Your task to perform on an android device: turn on notifications settings in the gmail app Image 0: 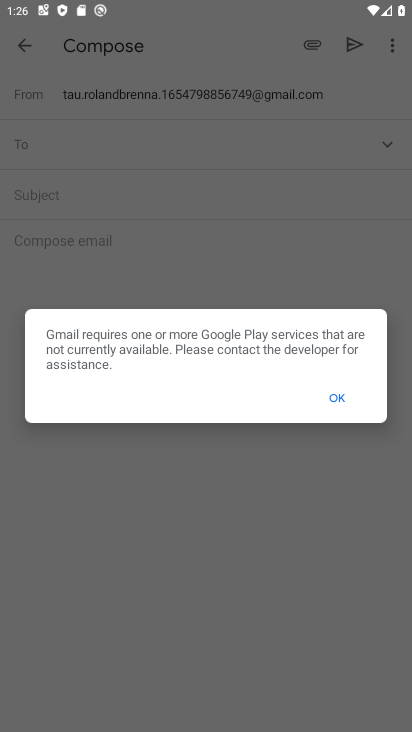
Step 0: click (340, 389)
Your task to perform on an android device: turn on notifications settings in the gmail app Image 1: 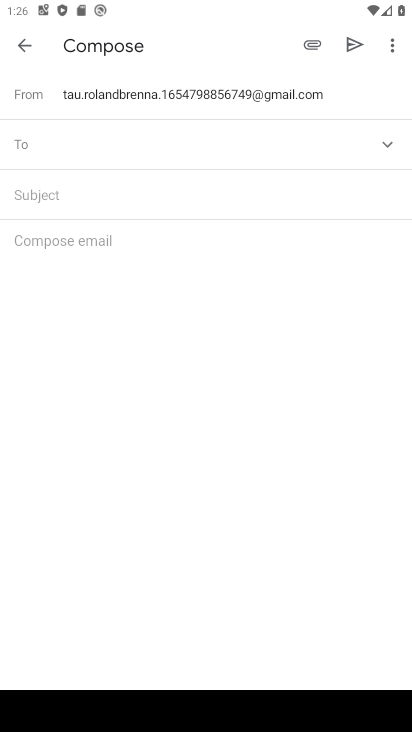
Step 1: press home button
Your task to perform on an android device: turn on notifications settings in the gmail app Image 2: 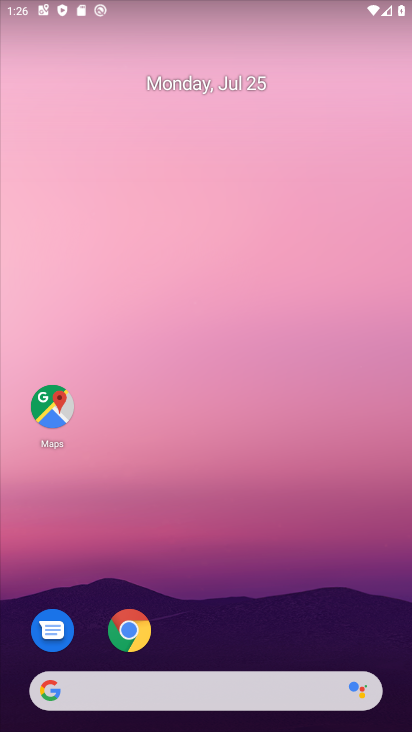
Step 2: drag from (249, 638) to (167, 19)
Your task to perform on an android device: turn on notifications settings in the gmail app Image 3: 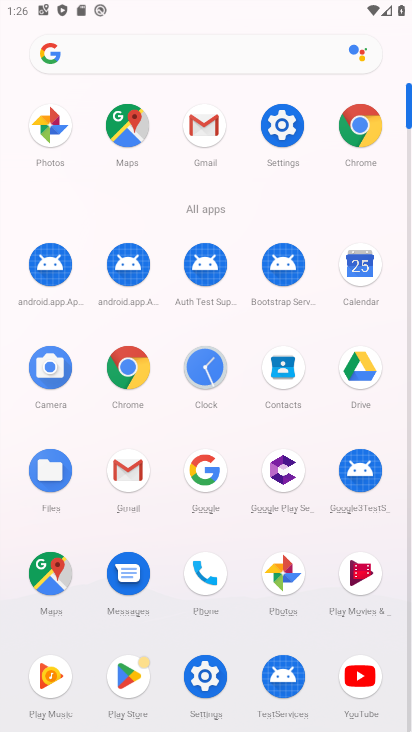
Step 3: click (207, 132)
Your task to perform on an android device: turn on notifications settings in the gmail app Image 4: 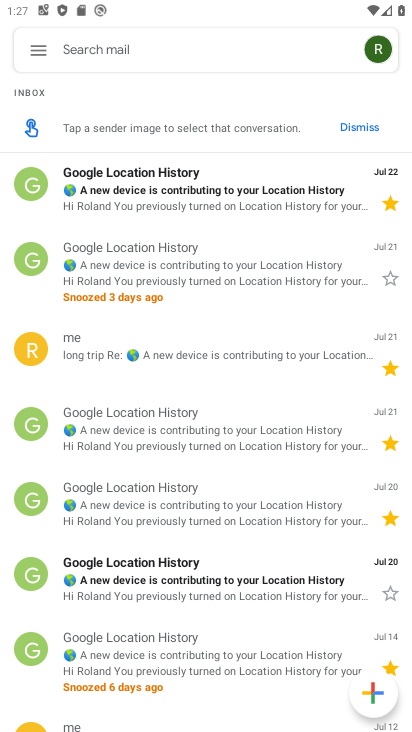
Step 4: click (44, 57)
Your task to perform on an android device: turn on notifications settings in the gmail app Image 5: 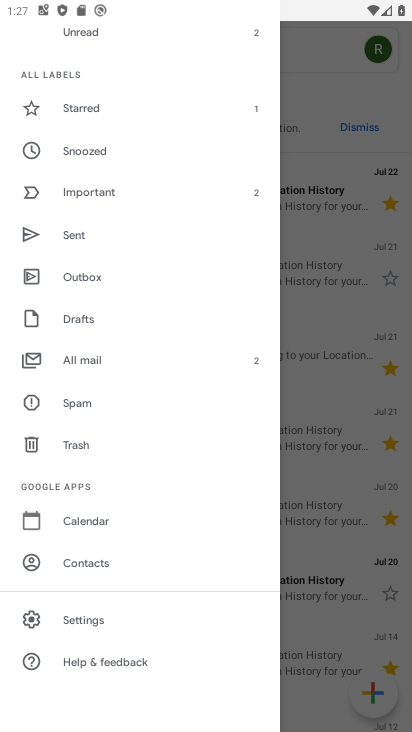
Step 5: click (78, 624)
Your task to perform on an android device: turn on notifications settings in the gmail app Image 6: 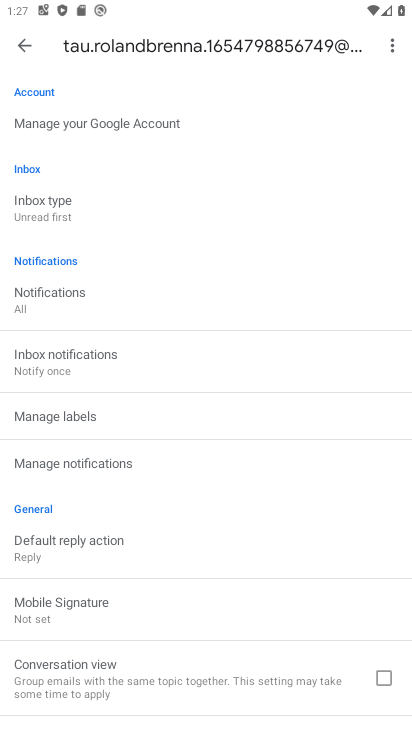
Step 6: click (83, 278)
Your task to perform on an android device: turn on notifications settings in the gmail app Image 7: 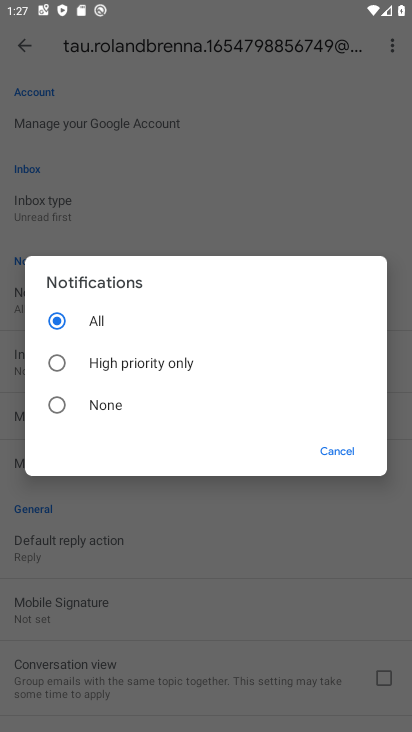
Step 7: task complete